Your task to perform on an android device: delete location history Image 0: 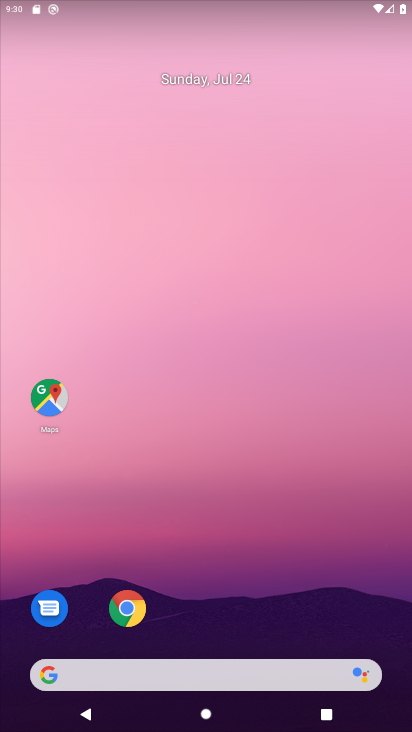
Step 0: click (50, 407)
Your task to perform on an android device: delete location history Image 1: 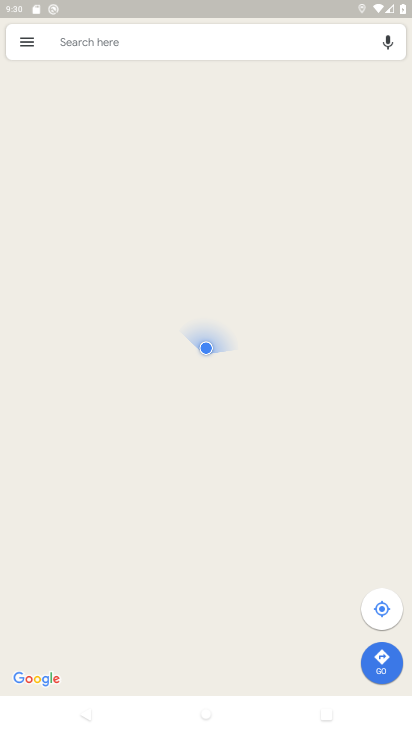
Step 1: click (22, 46)
Your task to perform on an android device: delete location history Image 2: 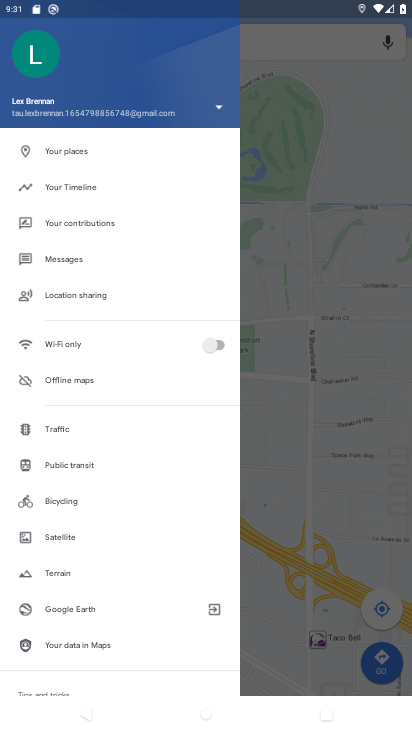
Step 2: click (55, 188)
Your task to perform on an android device: delete location history Image 3: 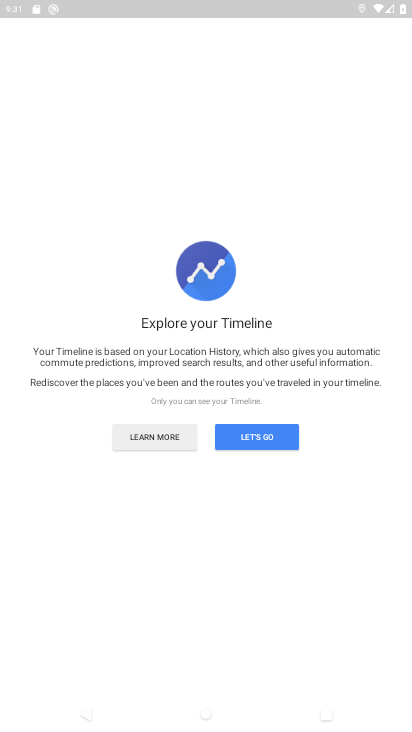
Step 3: click (265, 441)
Your task to perform on an android device: delete location history Image 4: 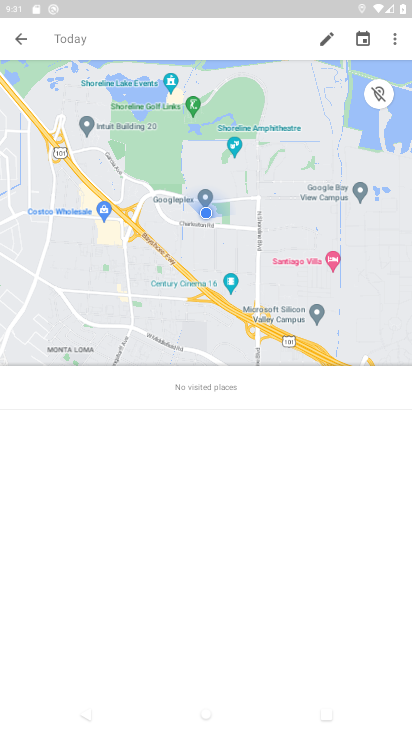
Step 4: click (391, 35)
Your task to perform on an android device: delete location history Image 5: 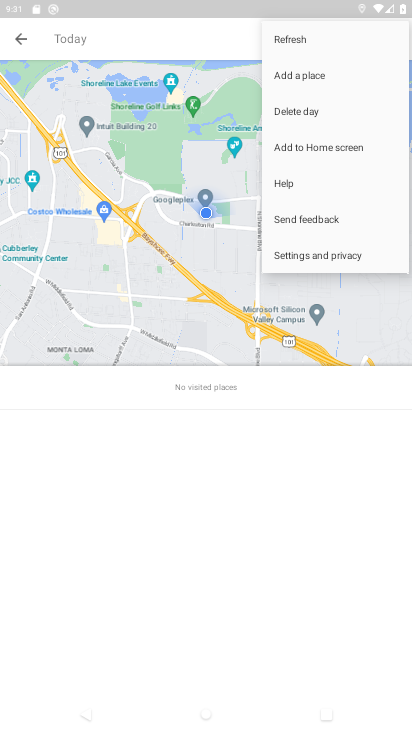
Step 5: click (311, 252)
Your task to perform on an android device: delete location history Image 6: 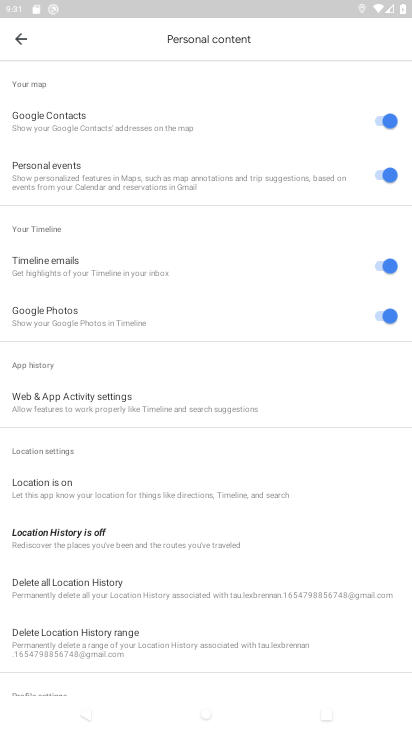
Step 6: click (128, 592)
Your task to perform on an android device: delete location history Image 7: 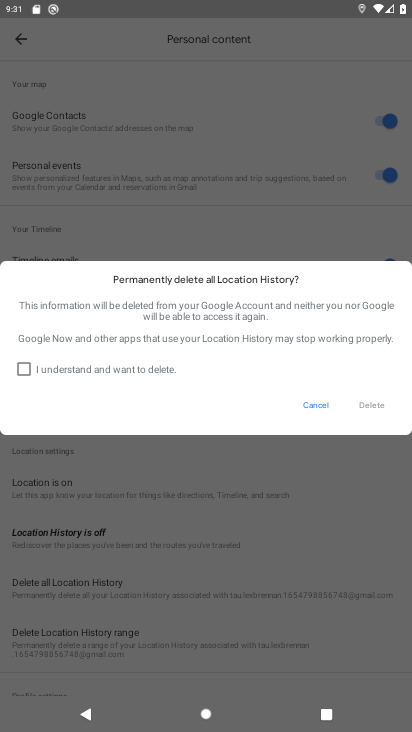
Step 7: click (36, 371)
Your task to perform on an android device: delete location history Image 8: 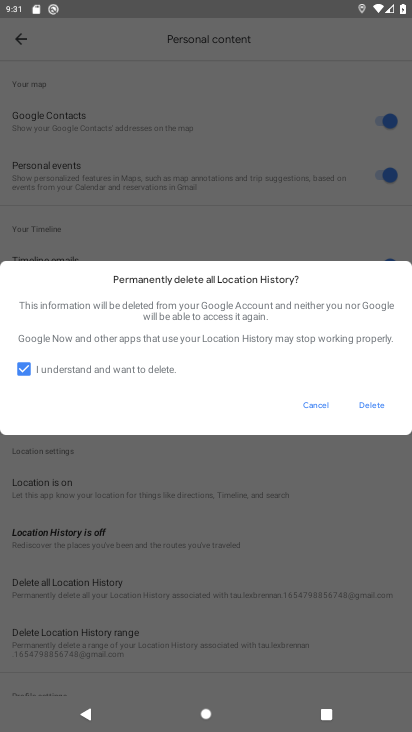
Step 8: click (365, 402)
Your task to perform on an android device: delete location history Image 9: 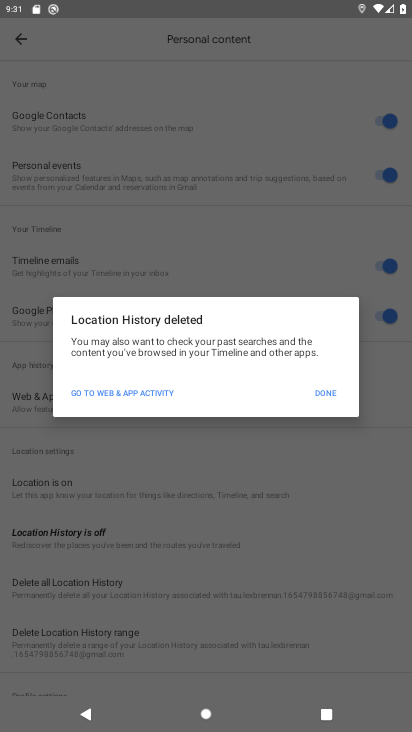
Step 9: click (331, 394)
Your task to perform on an android device: delete location history Image 10: 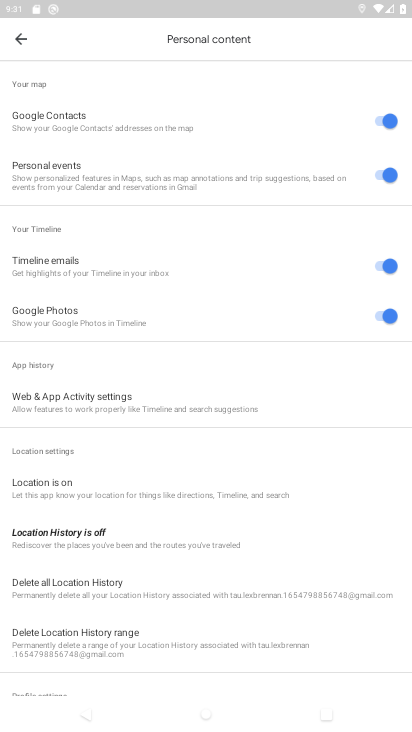
Step 10: task complete